Your task to perform on an android device: Open the contacts Image 0: 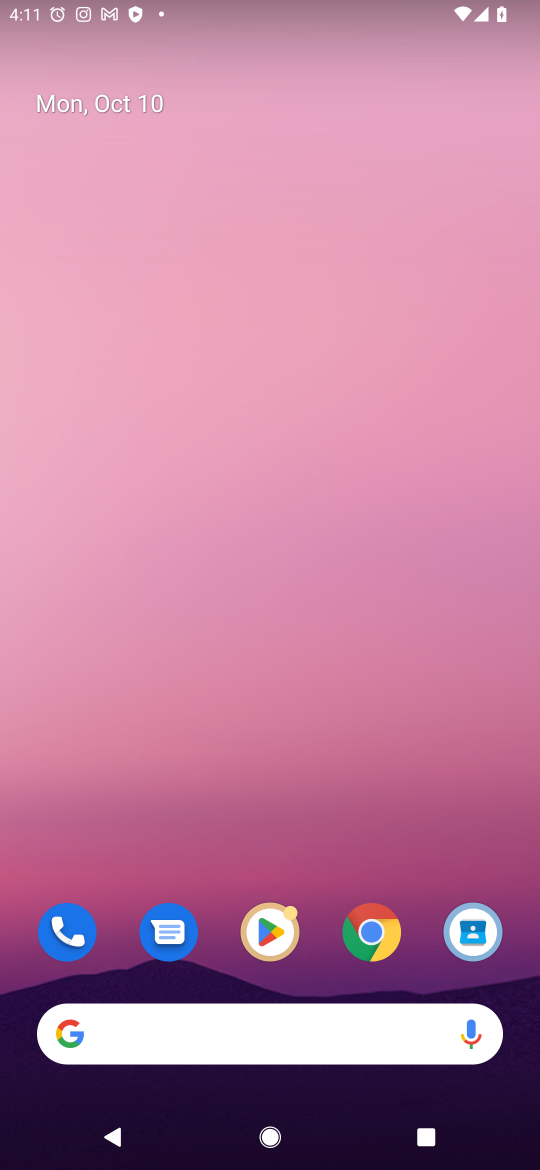
Step 0: drag from (466, 733) to (405, 50)
Your task to perform on an android device: Open the contacts Image 1: 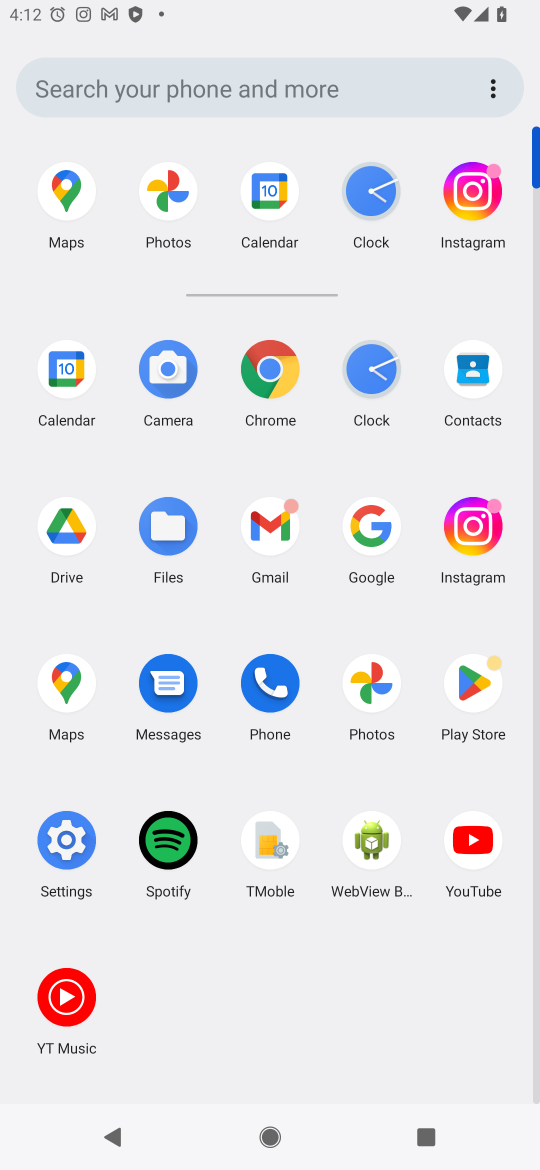
Step 1: click (483, 380)
Your task to perform on an android device: Open the contacts Image 2: 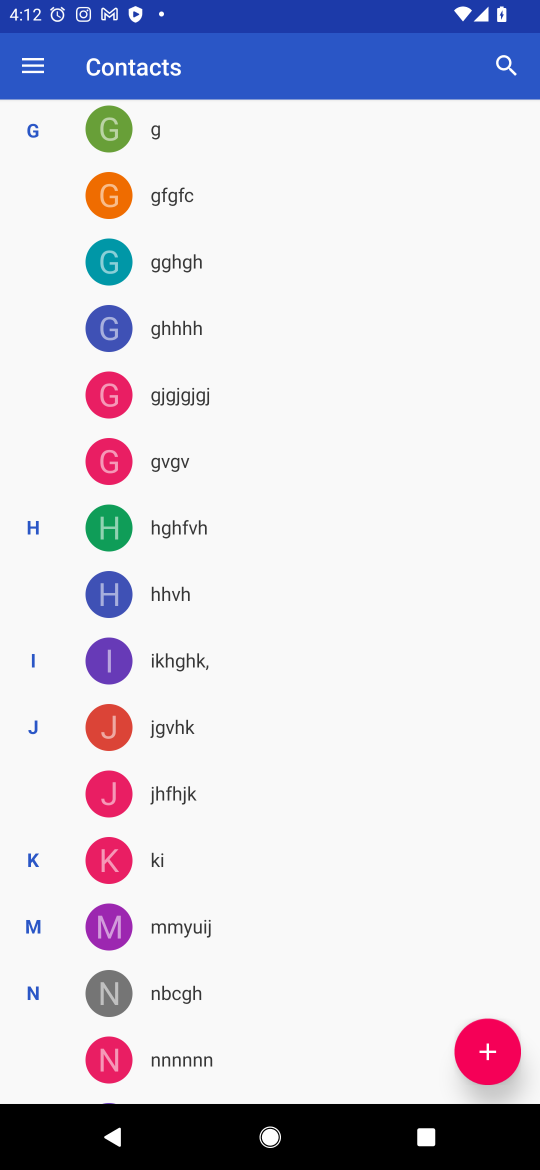
Step 2: task complete